Your task to perform on an android device: Open maps Image 0: 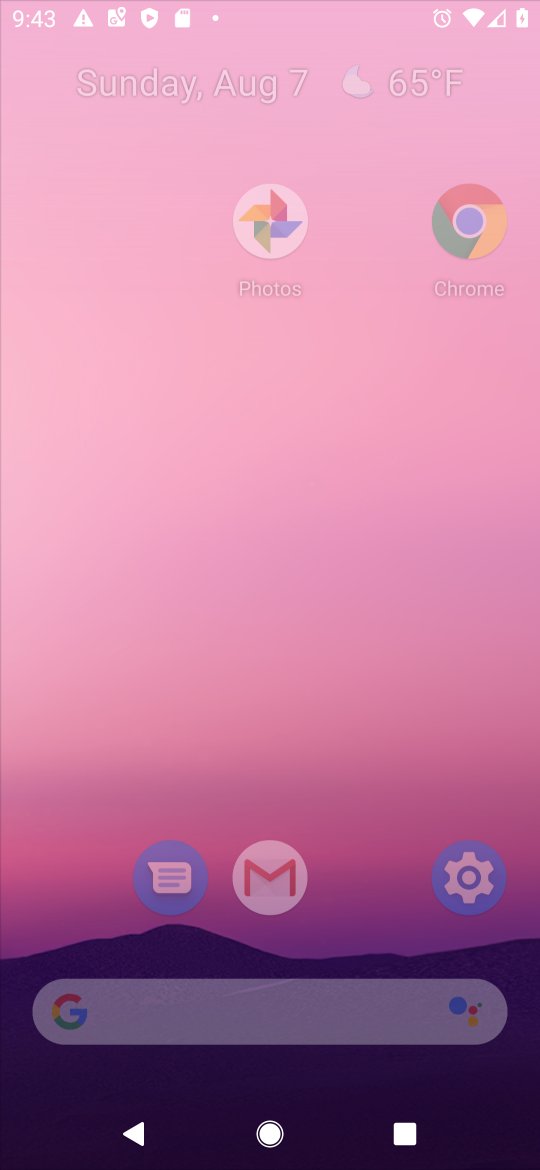
Step 0: press home button
Your task to perform on an android device: Open maps Image 1: 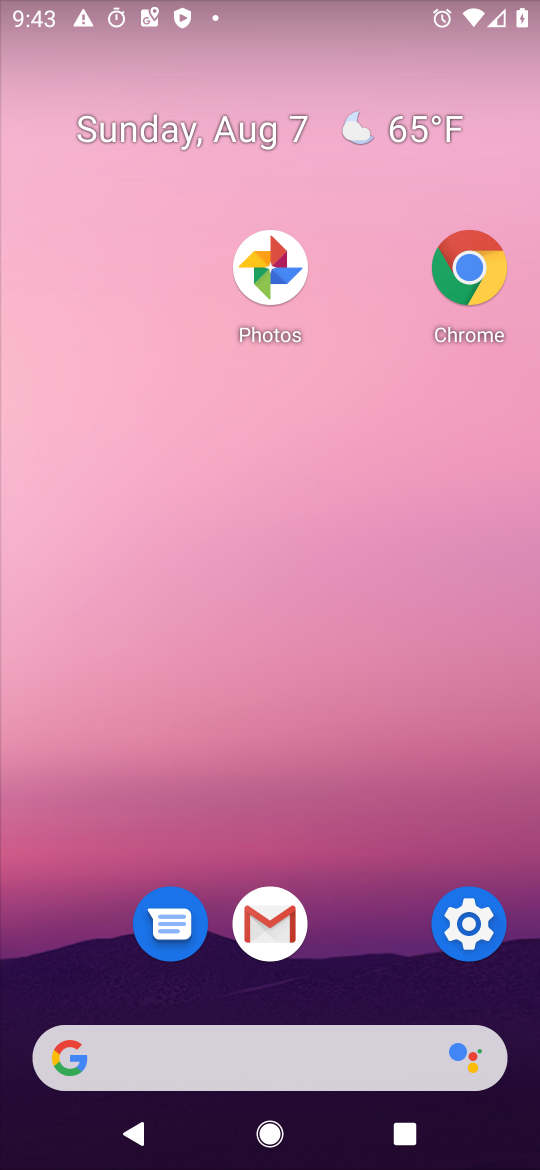
Step 1: drag from (366, 1108) to (373, 366)
Your task to perform on an android device: Open maps Image 2: 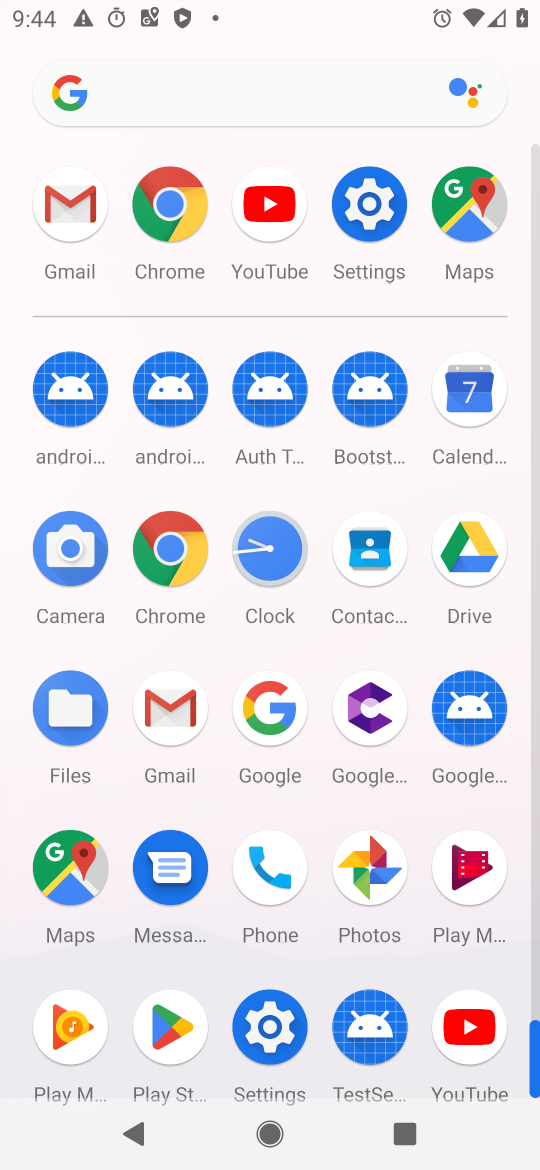
Step 2: click (467, 217)
Your task to perform on an android device: Open maps Image 3: 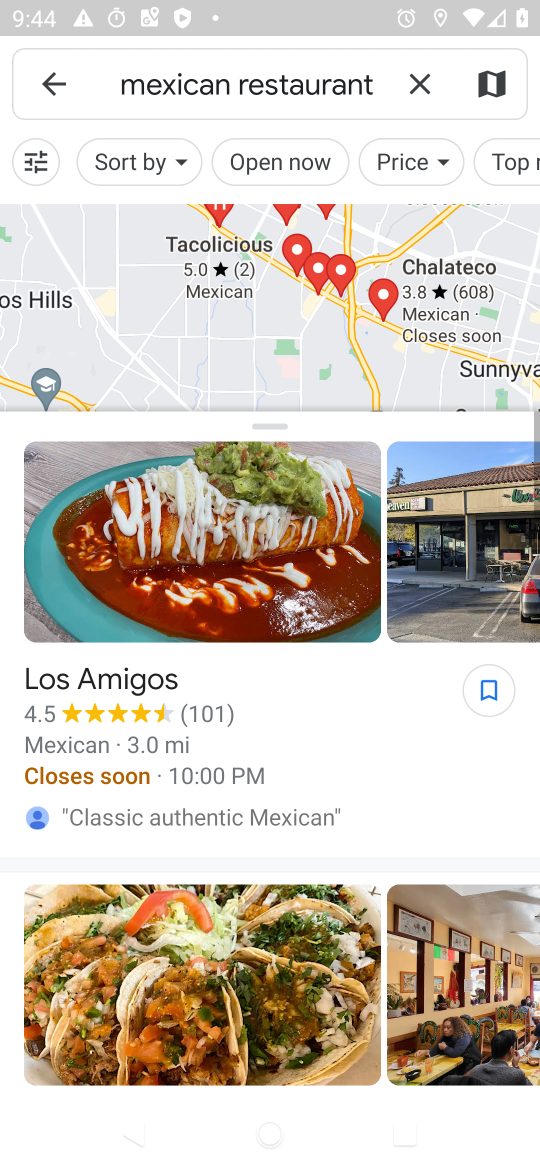
Step 3: click (39, 90)
Your task to perform on an android device: Open maps Image 4: 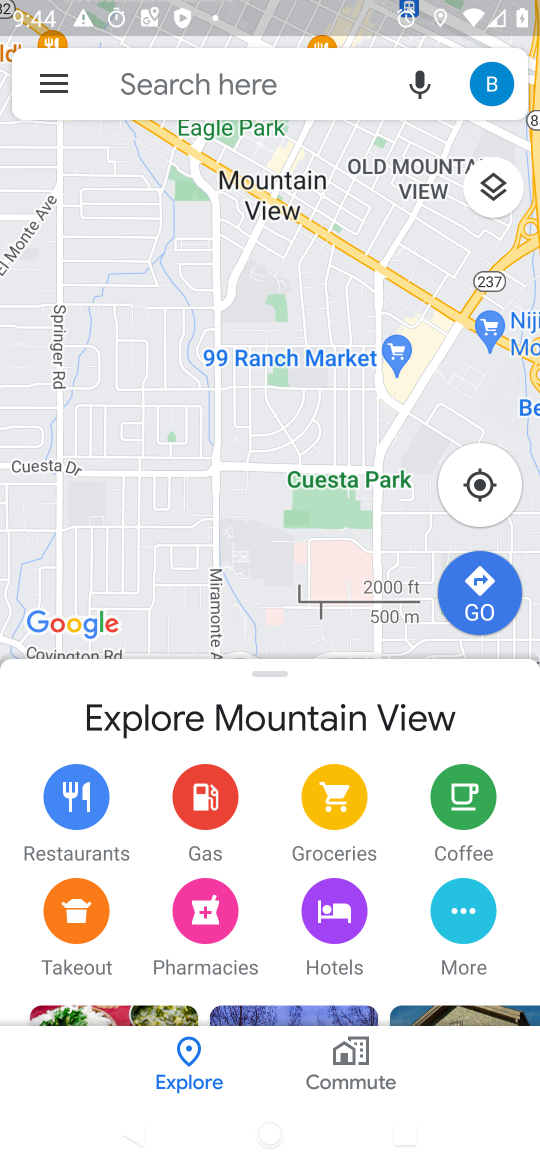
Step 4: task complete